Your task to perform on an android device: Go to network settings Image 0: 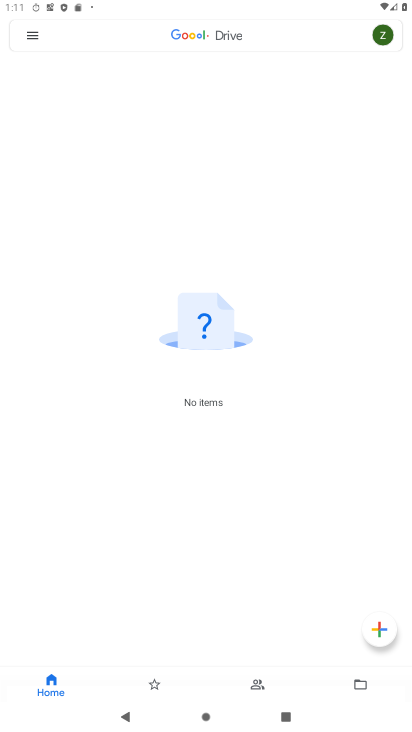
Step 0: press home button
Your task to perform on an android device: Go to network settings Image 1: 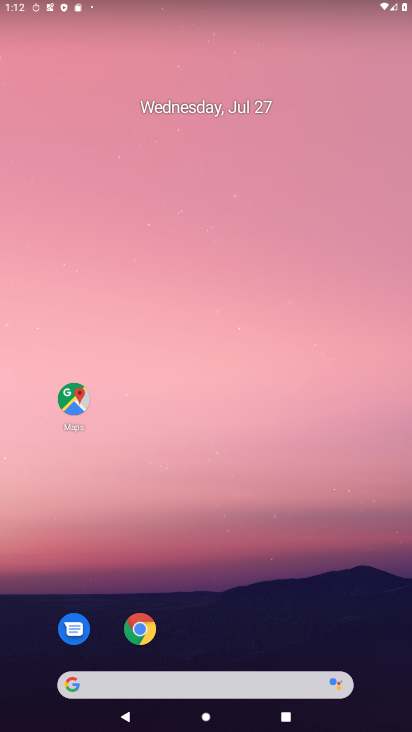
Step 1: drag from (297, 586) to (142, 33)
Your task to perform on an android device: Go to network settings Image 2: 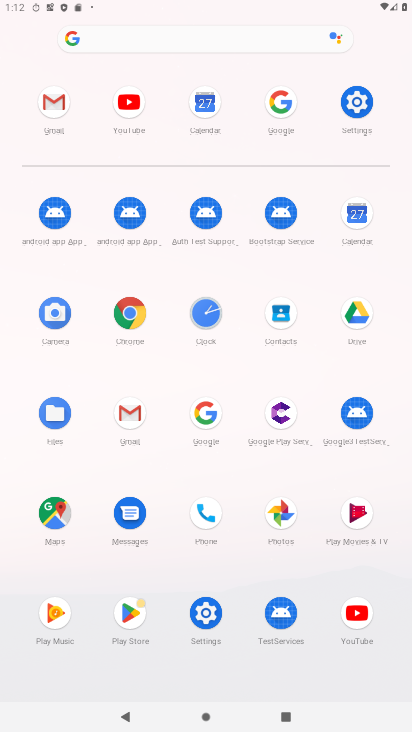
Step 2: click (359, 94)
Your task to perform on an android device: Go to network settings Image 3: 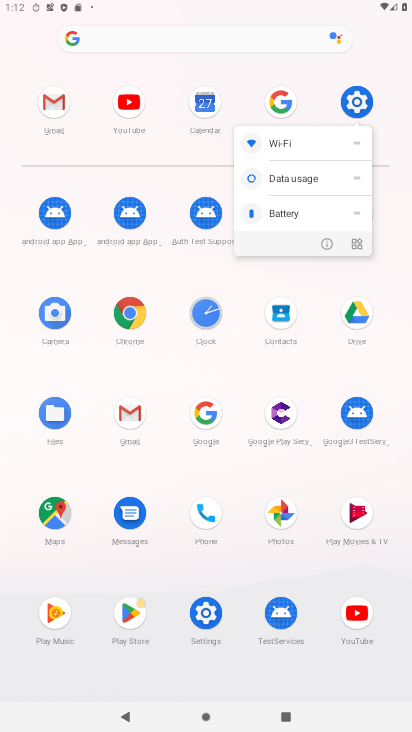
Step 3: click (359, 94)
Your task to perform on an android device: Go to network settings Image 4: 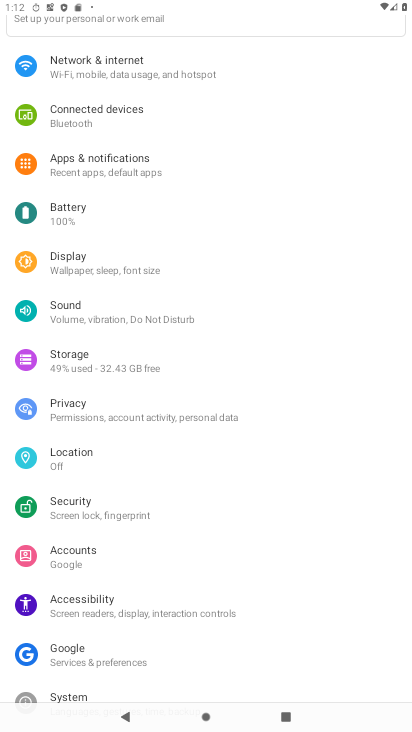
Step 4: click (120, 73)
Your task to perform on an android device: Go to network settings Image 5: 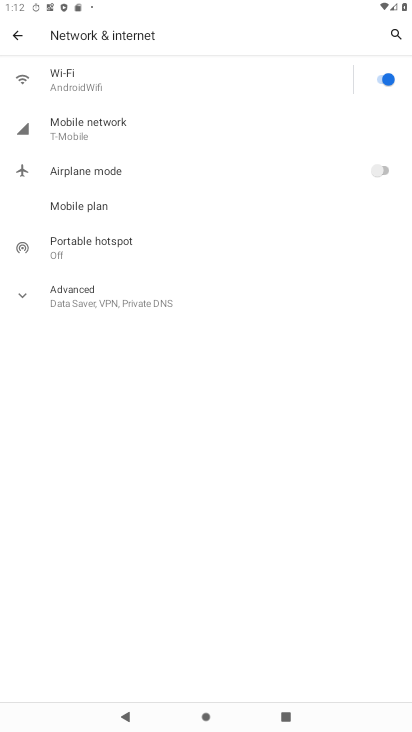
Step 5: task complete